Your task to perform on an android device: empty trash in google photos Image 0: 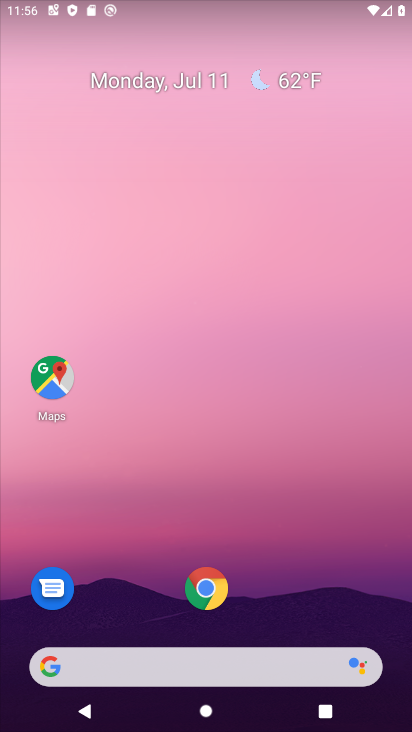
Step 0: drag from (166, 561) to (169, 147)
Your task to perform on an android device: empty trash in google photos Image 1: 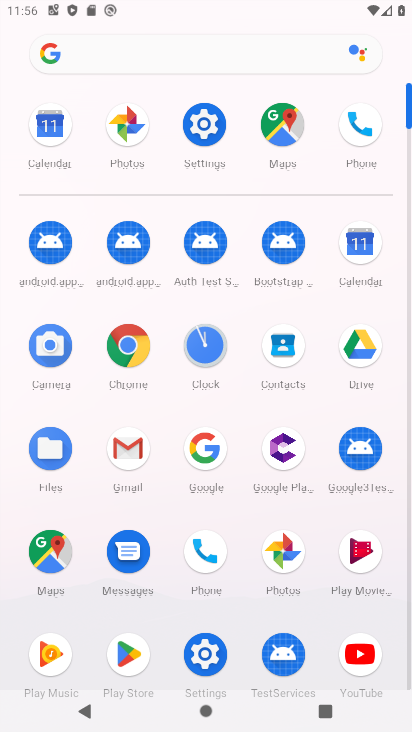
Step 1: click (289, 555)
Your task to perform on an android device: empty trash in google photos Image 2: 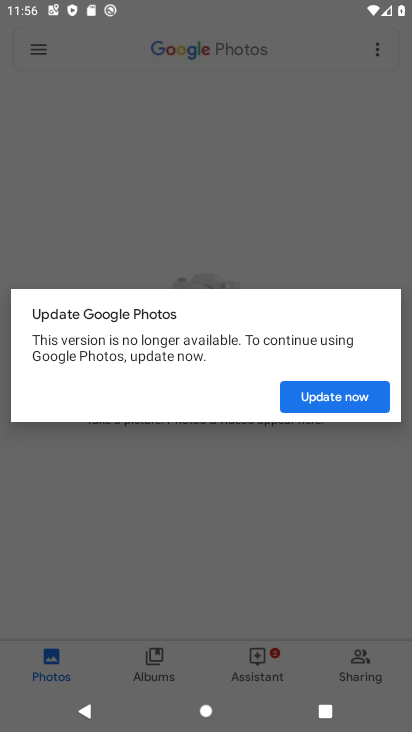
Step 2: click (348, 401)
Your task to perform on an android device: empty trash in google photos Image 3: 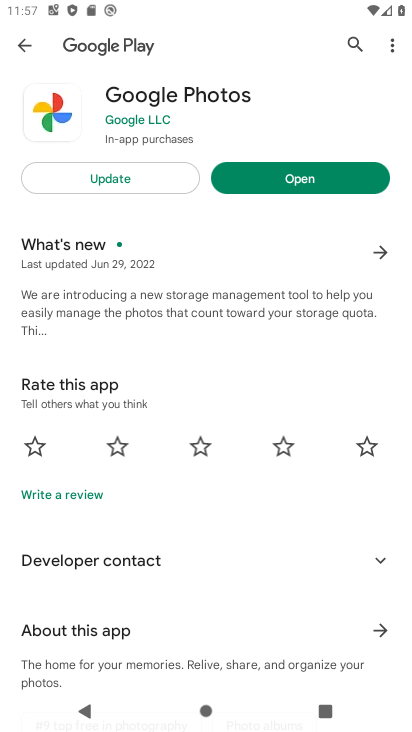
Step 3: click (149, 183)
Your task to perform on an android device: empty trash in google photos Image 4: 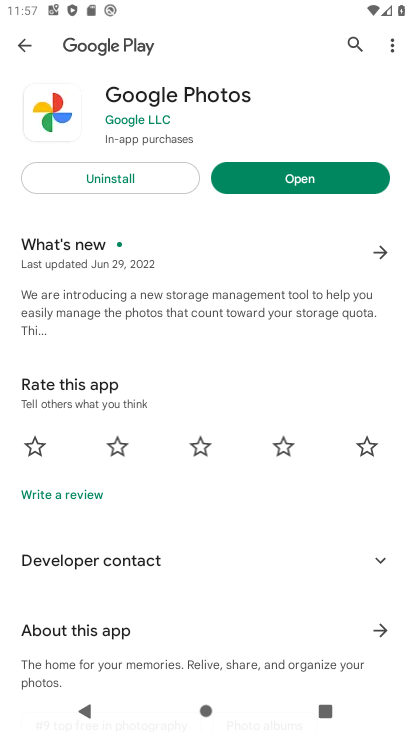
Step 4: click (247, 178)
Your task to perform on an android device: empty trash in google photos Image 5: 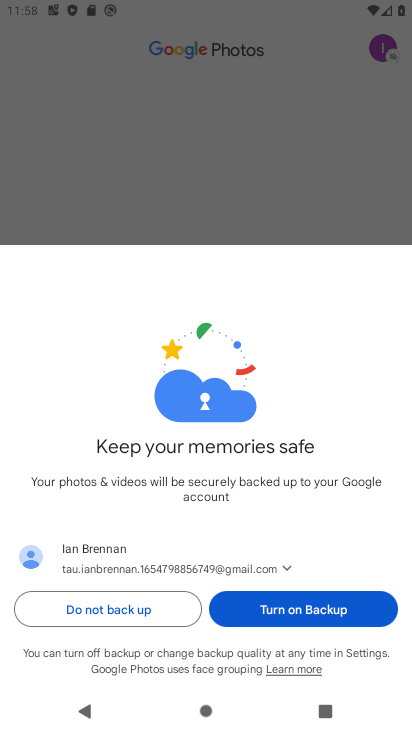
Step 5: click (255, 610)
Your task to perform on an android device: empty trash in google photos Image 6: 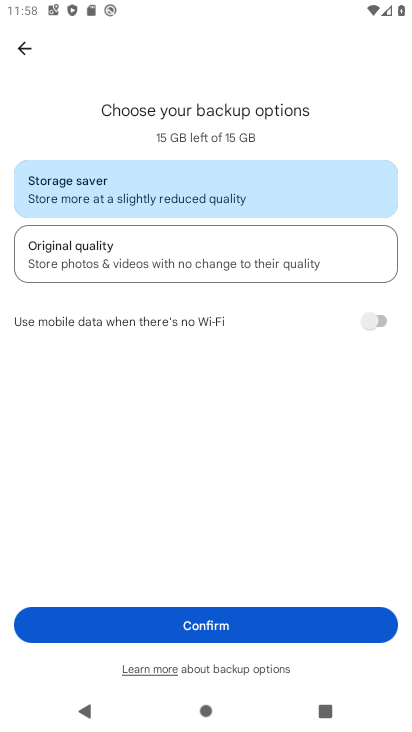
Step 6: click (194, 618)
Your task to perform on an android device: empty trash in google photos Image 7: 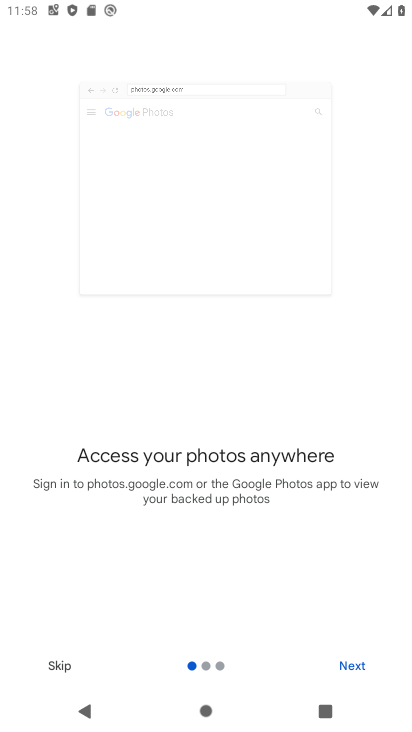
Step 7: click (350, 663)
Your task to perform on an android device: empty trash in google photos Image 8: 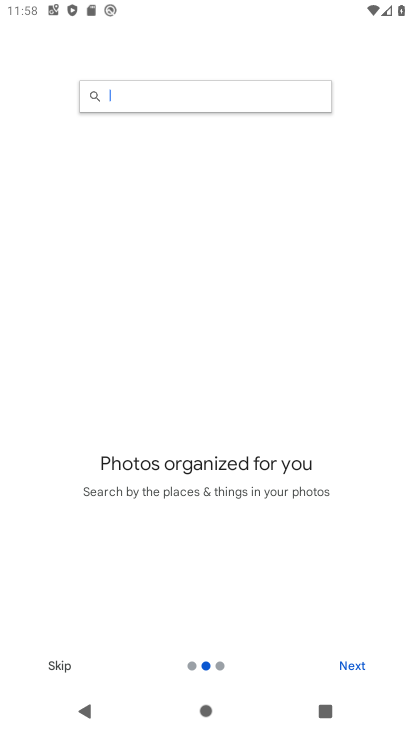
Step 8: click (350, 663)
Your task to perform on an android device: empty trash in google photos Image 9: 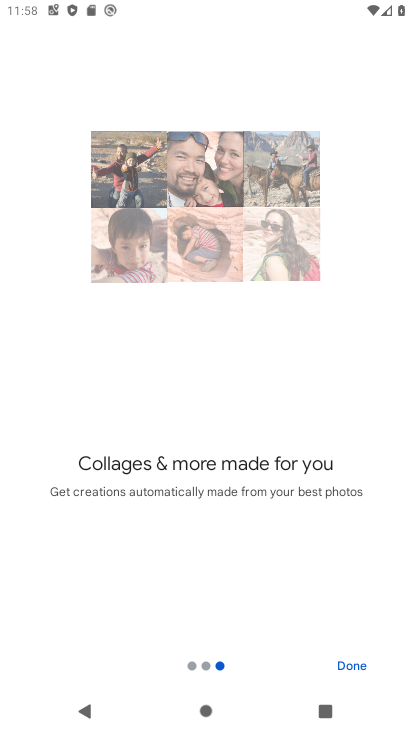
Step 9: click (350, 663)
Your task to perform on an android device: empty trash in google photos Image 10: 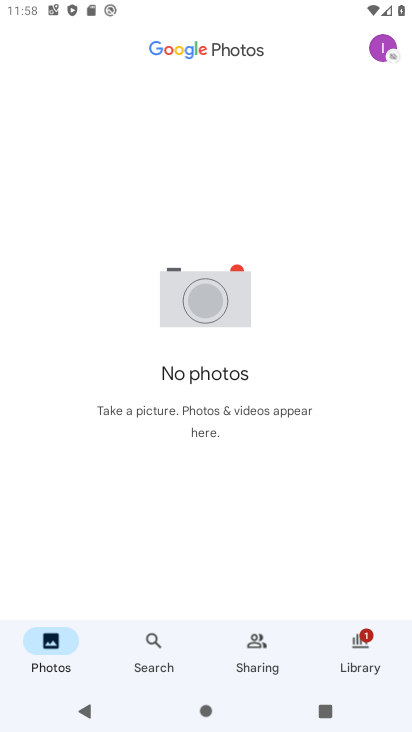
Step 10: click (350, 663)
Your task to perform on an android device: empty trash in google photos Image 11: 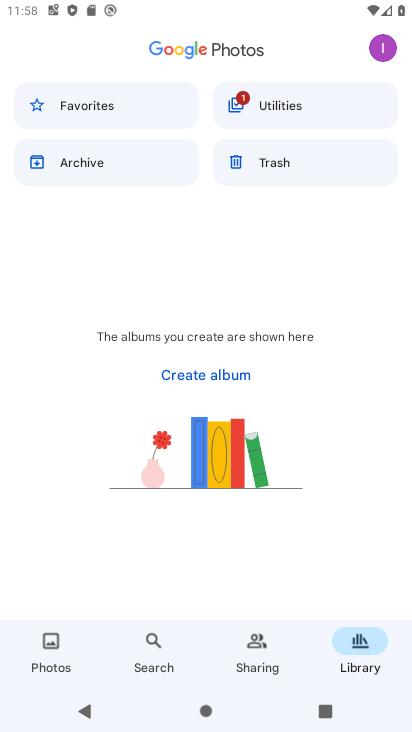
Step 11: click (274, 184)
Your task to perform on an android device: empty trash in google photos Image 12: 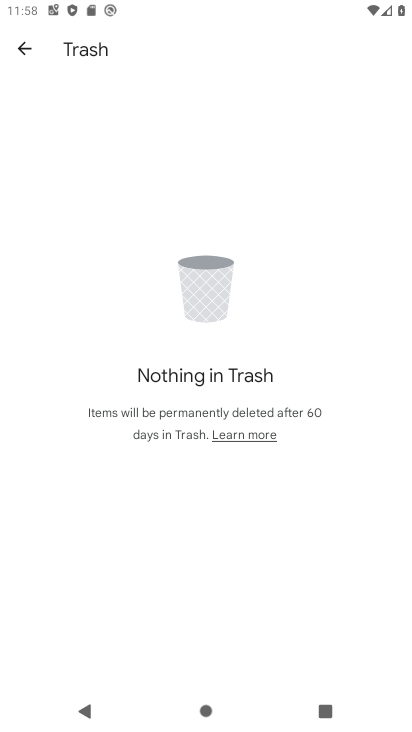
Step 12: task complete